Your task to perform on an android device: remove spam from my inbox in the gmail app Image 0: 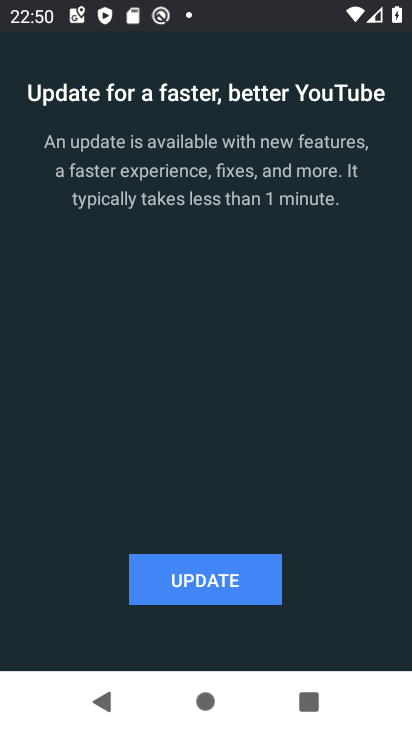
Step 0: press home button
Your task to perform on an android device: remove spam from my inbox in the gmail app Image 1: 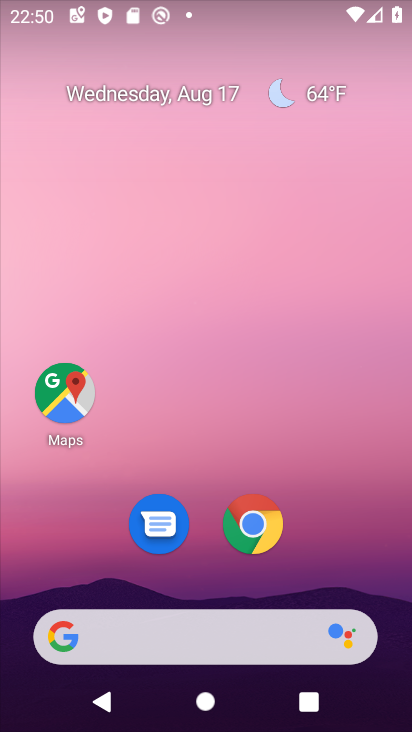
Step 1: drag from (317, 515) to (324, 6)
Your task to perform on an android device: remove spam from my inbox in the gmail app Image 2: 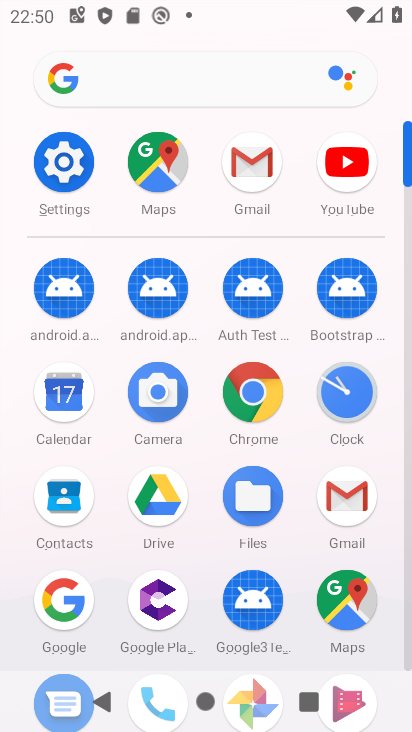
Step 2: click (253, 160)
Your task to perform on an android device: remove spam from my inbox in the gmail app Image 3: 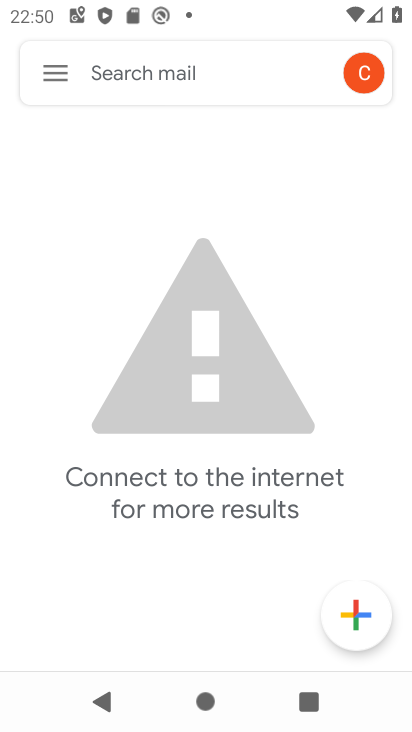
Step 3: click (57, 75)
Your task to perform on an android device: remove spam from my inbox in the gmail app Image 4: 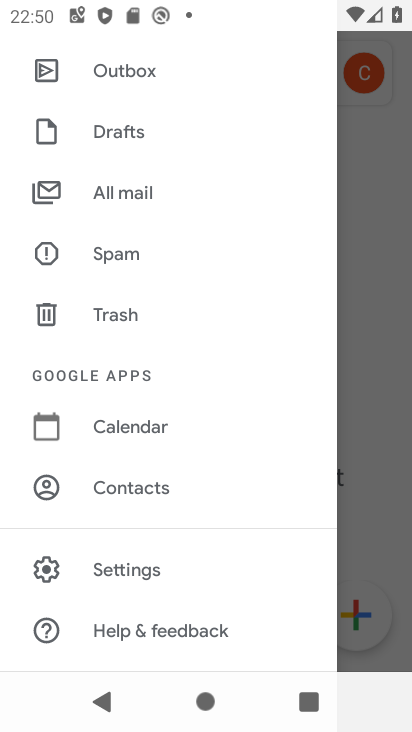
Step 4: click (129, 248)
Your task to perform on an android device: remove spam from my inbox in the gmail app Image 5: 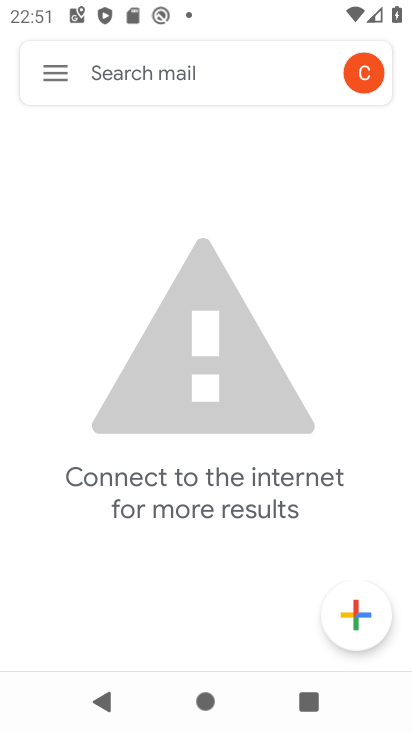
Step 5: click (51, 73)
Your task to perform on an android device: remove spam from my inbox in the gmail app Image 6: 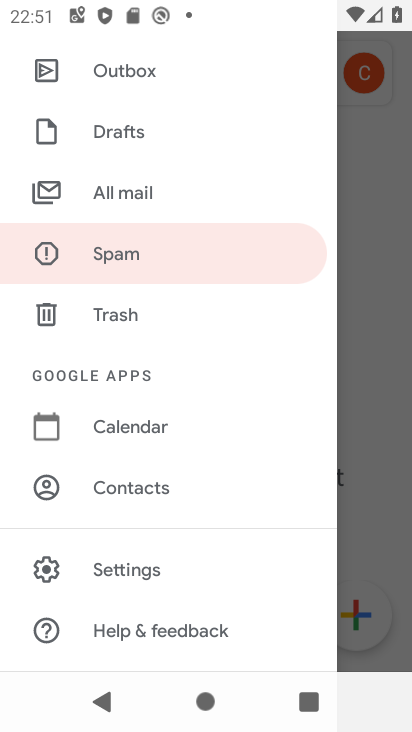
Step 6: click (107, 310)
Your task to perform on an android device: remove spam from my inbox in the gmail app Image 7: 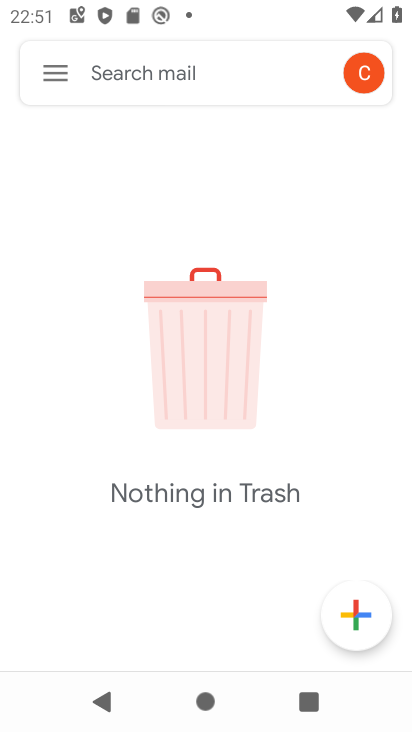
Step 7: click (54, 60)
Your task to perform on an android device: remove spam from my inbox in the gmail app Image 8: 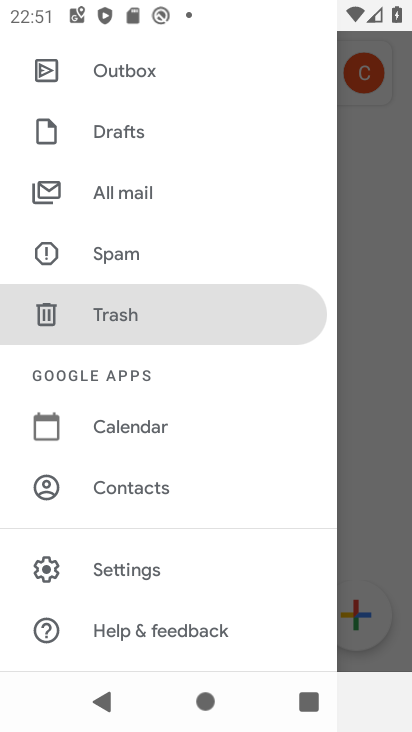
Step 8: click (121, 257)
Your task to perform on an android device: remove spam from my inbox in the gmail app Image 9: 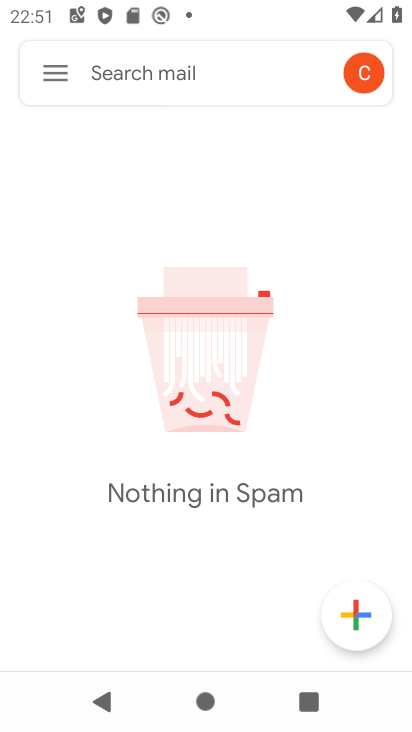
Step 9: task complete